Your task to perform on an android device: Open Wikipedia Image 0: 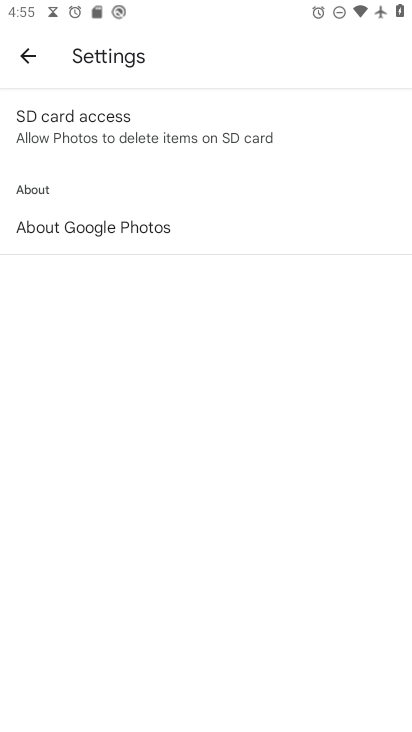
Step 0: press back button
Your task to perform on an android device: Open Wikipedia Image 1: 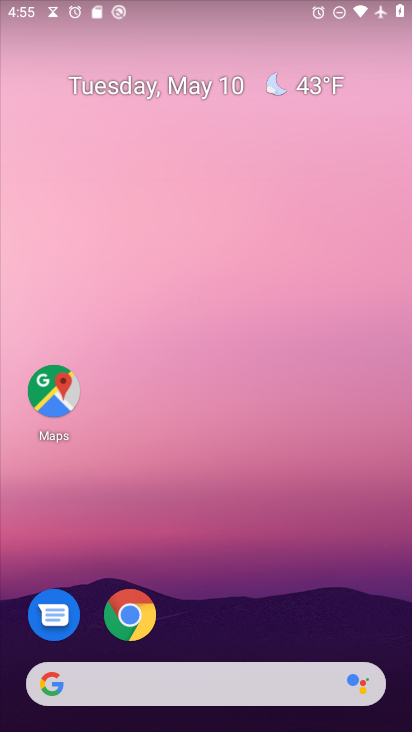
Step 1: drag from (260, 539) to (233, 44)
Your task to perform on an android device: Open Wikipedia Image 2: 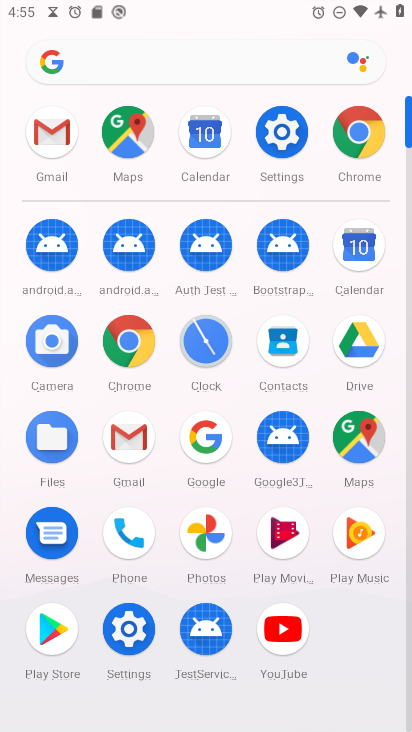
Step 2: click (126, 336)
Your task to perform on an android device: Open Wikipedia Image 3: 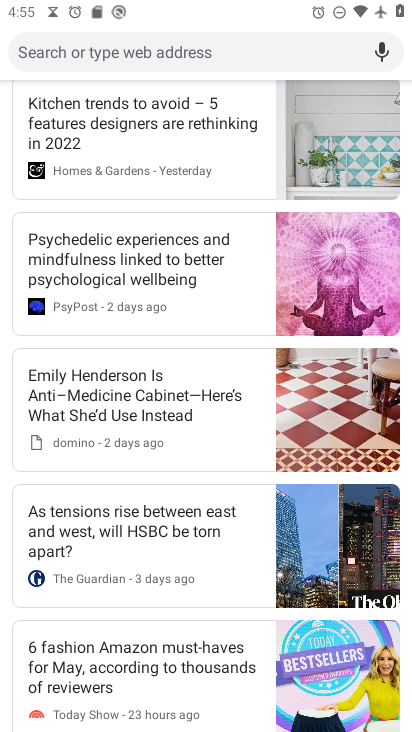
Step 3: click (197, 52)
Your task to perform on an android device: Open Wikipedia Image 4: 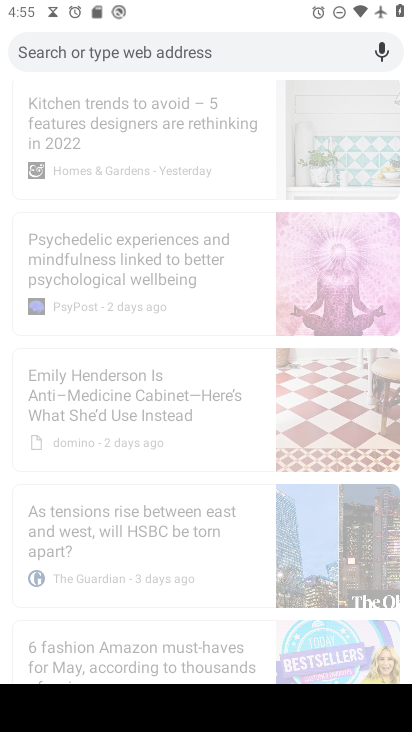
Step 4: type "Wikipedia"
Your task to perform on an android device: Open Wikipedia Image 5: 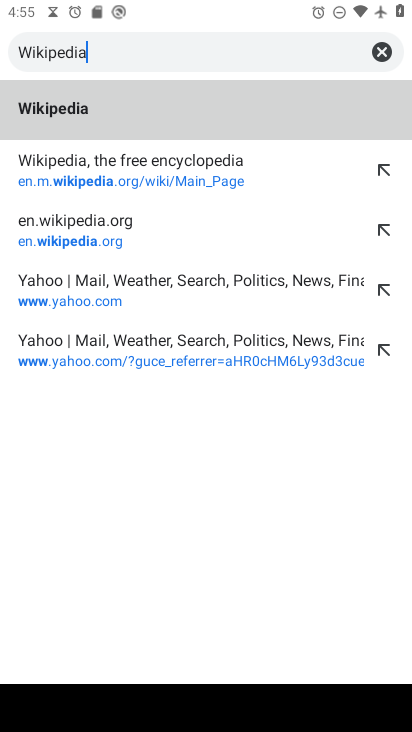
Step 5: type ""
Your task to perform on an android device: Open Wikipedia Image 6: 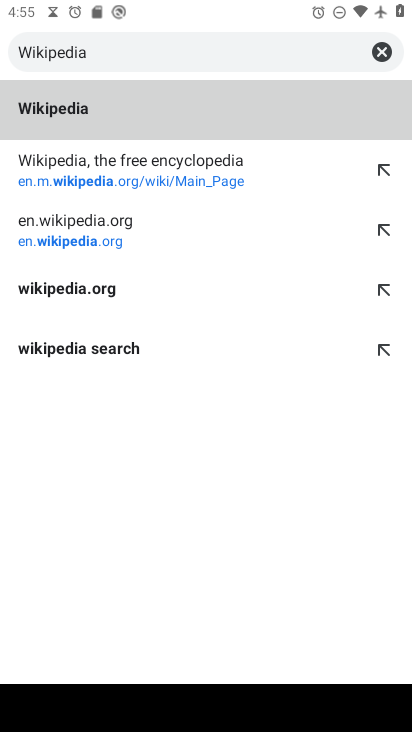
Step 6: click (75, 181)
Your task to perform on an android device: Open Wikipedia Image 7: 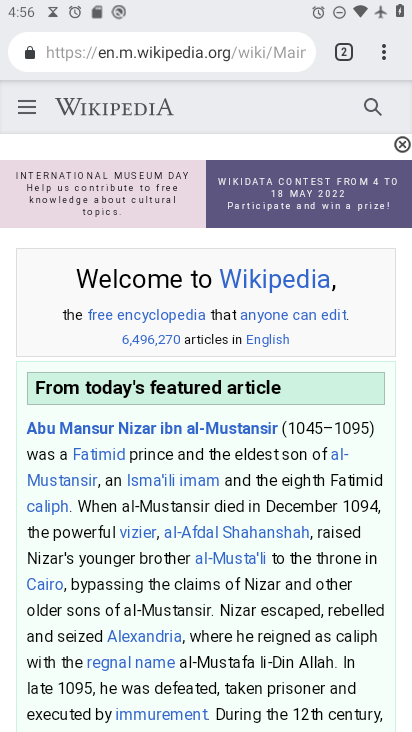
Step 7: task complete